Your task to perform on an android device: show emergency info Image 0: 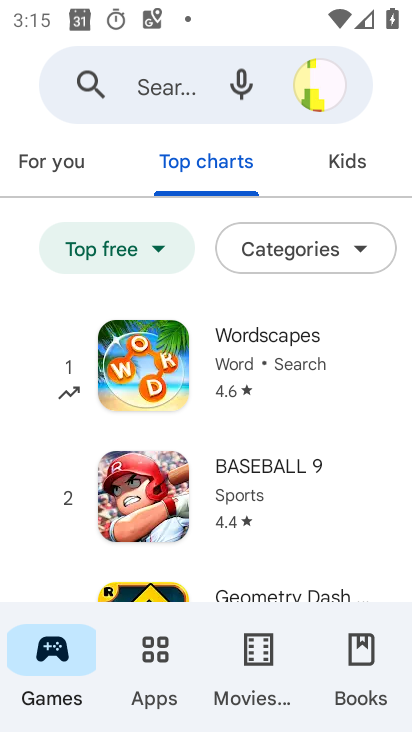
Step 0: press home button
Your task to perform on an android device: show emergency info Image 1: 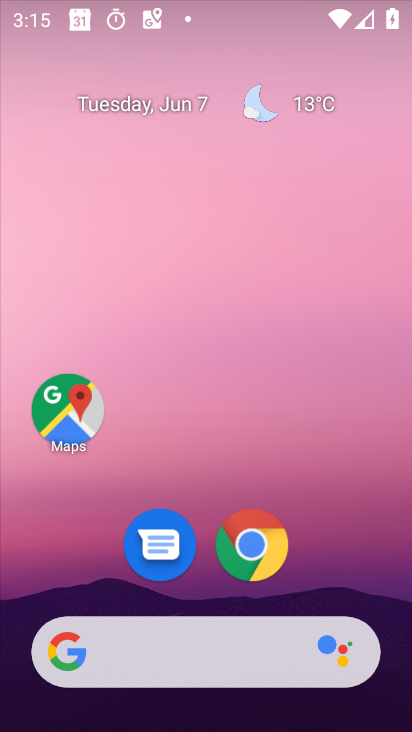
Step 1: drag from (394, 599) to (276, 11)
Your task to perform on an android device: show emergency info Image 2: 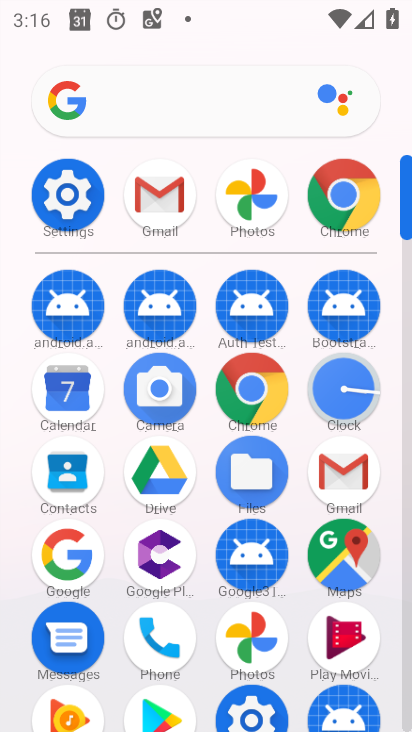
Step 2: click (75, 201)
Your task to perform on an android device: show emergency info Image 3: 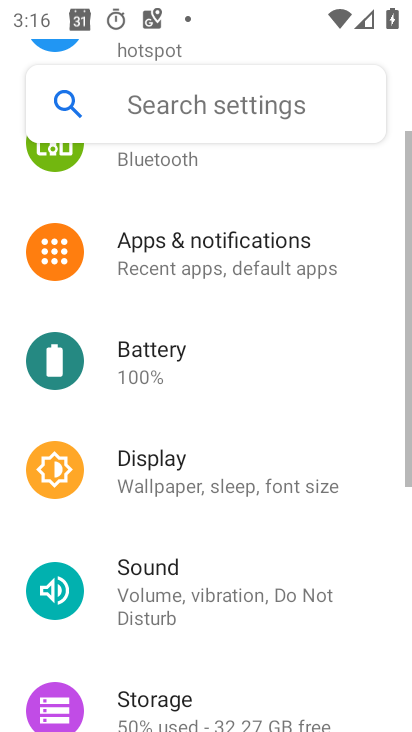
Step 3: drag from (279, 513) to (241, 15)
Your task to perform on an android device: show emergency info Image 4: 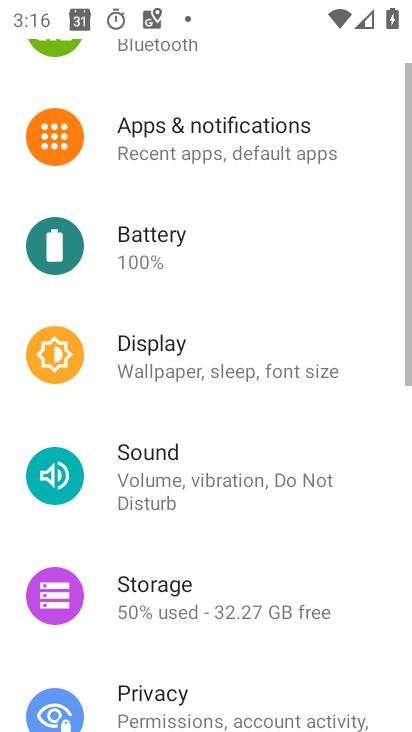
Step 4: drag from (300, 548) to (229, 20)
Your task to perform on an android device: show emergency info Image 5: 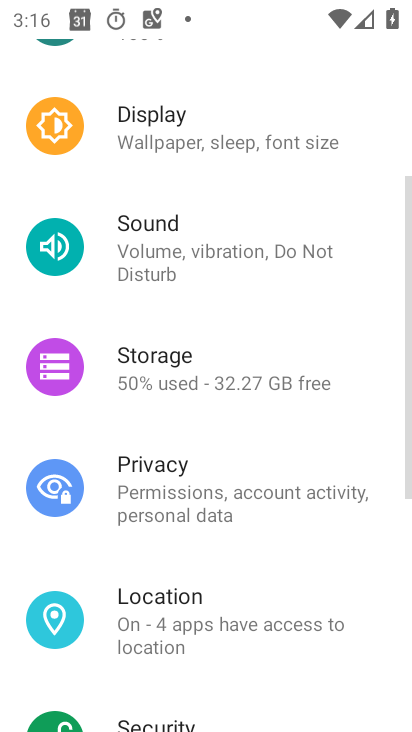
Step 5: drag from (258, 608) to (267, 29)
Your task to perform on an android device: show emergency info Image 6: 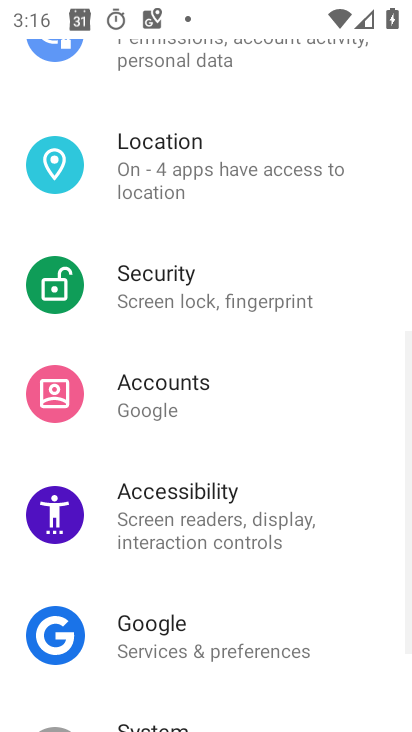
Step 6: drag from (256, 669) to (264, 140)
Your task to perform on an android device: show emergency info Image 7: 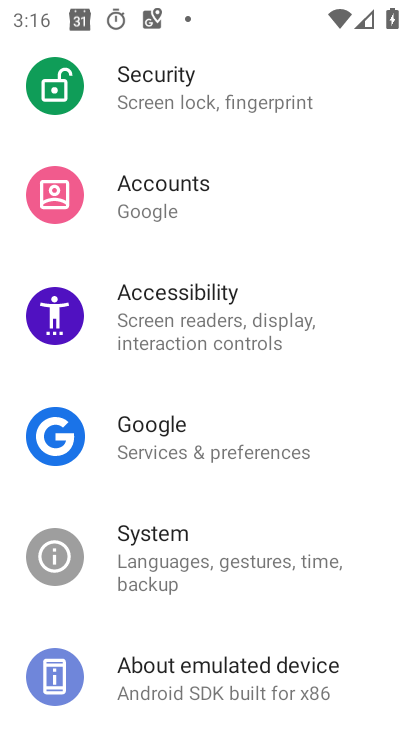
Step 7: click (273, 665)
Your task to perform on an android device: show emergency info Image 8: 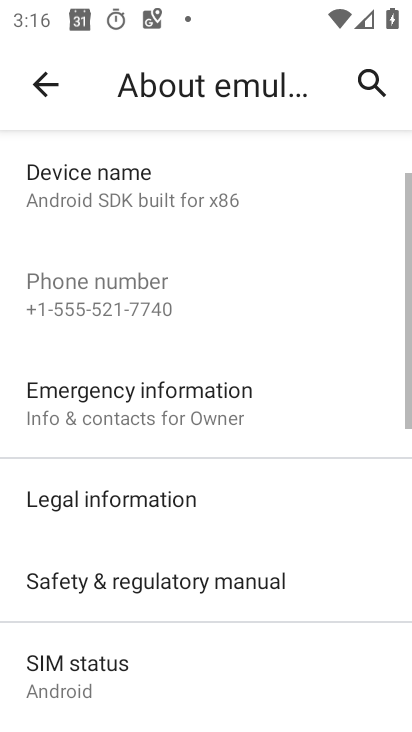
Step 8: click (213, 403)
Your task to perform on an android device: show emergency info Image 9: 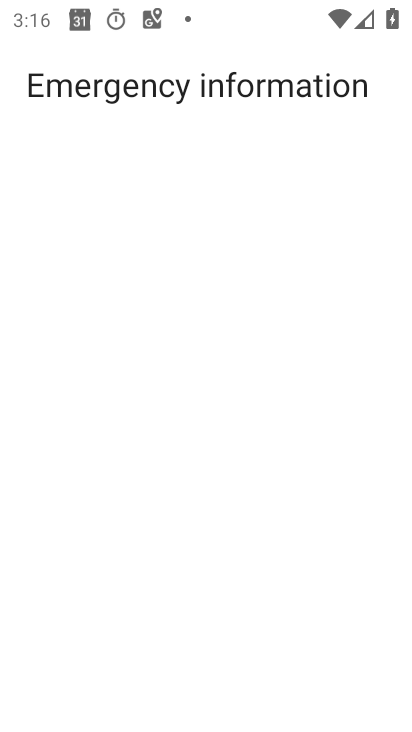
Step 9: task complete